Your task to perform on an android device: open chrome privacy settings Image 0: 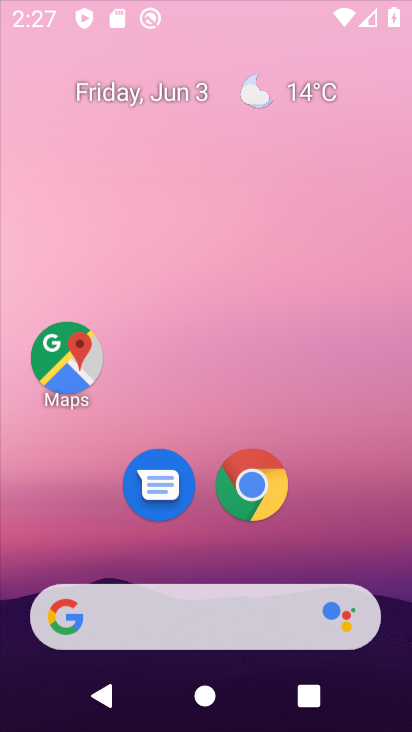
Step 0: press back button
Your task to perform on an android device: open chrome privacy settings Image 1: 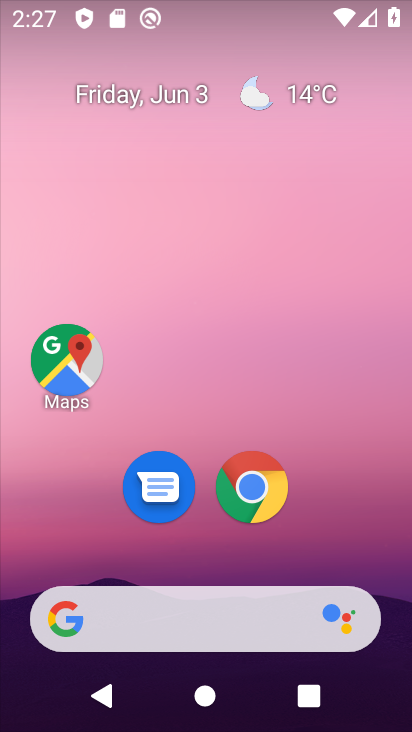
Step 1: click (75, 364)
Your task to perform on an android device: open chrome privacy settings Image 2: 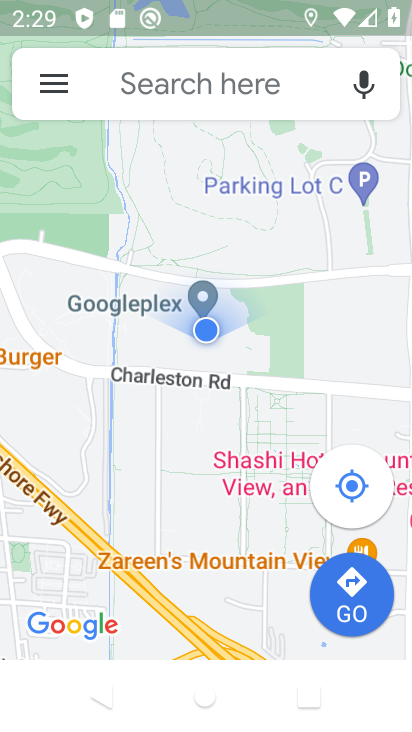
Step 2: press back button
Your task to perform on an android device: open chrome privacy settings Image 3: 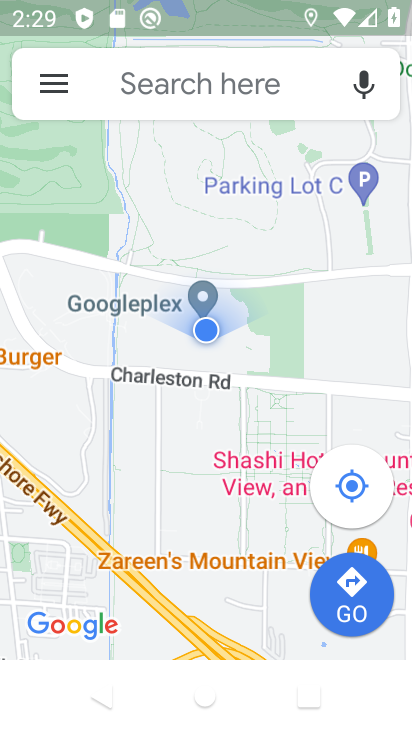
Step 3: press back button
Your task to perform on an android device: open chrome privacy settings Image 4: 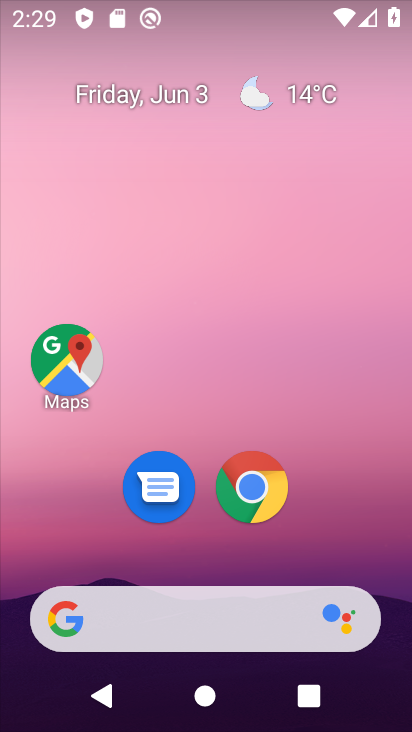
Step 4: press back button
Your task to perform on an android device: open chrome privacy settings Image 5: 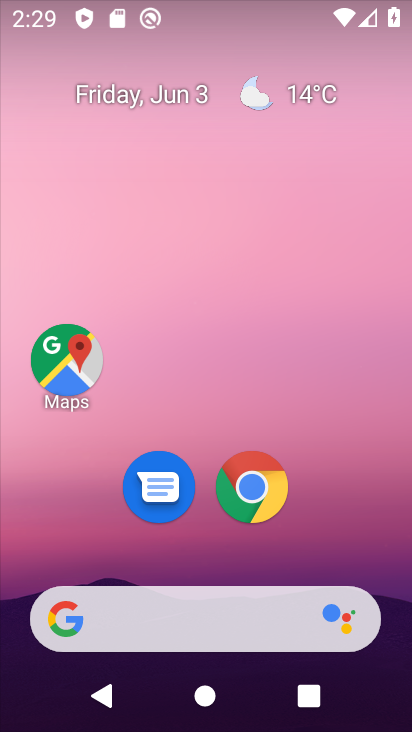
Step 5: click (275, 458)
Your task to perform on an android device: open chrome privacy settings Image 6: 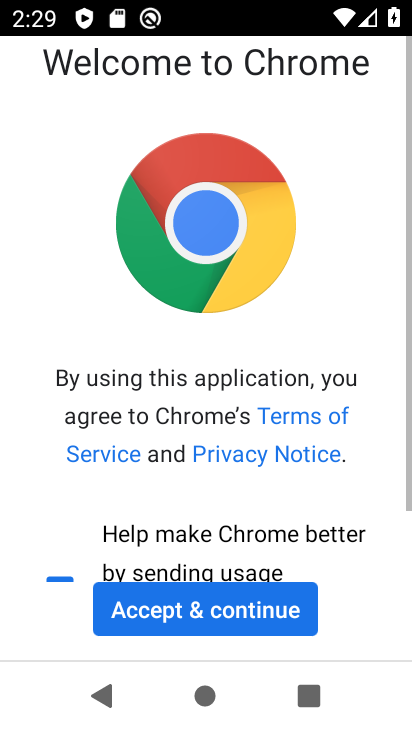
Step 6: click (163, 610)
Your task to perform on an android device: open chrome privacy settings Image 7: 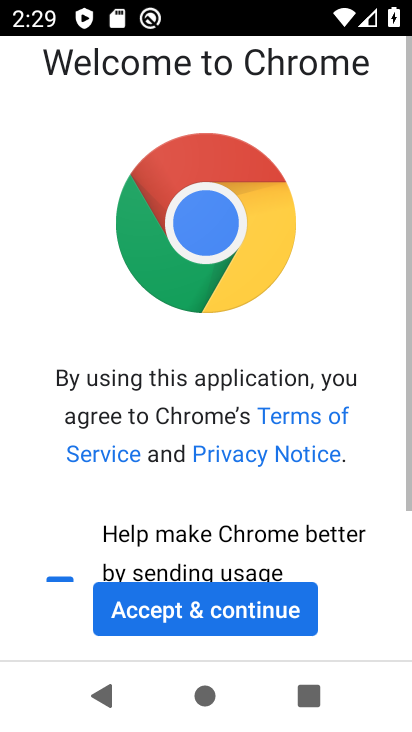
Step 7: click (163, 610)
Your task to perform on an android device: open chrome privacy settings Image 8: 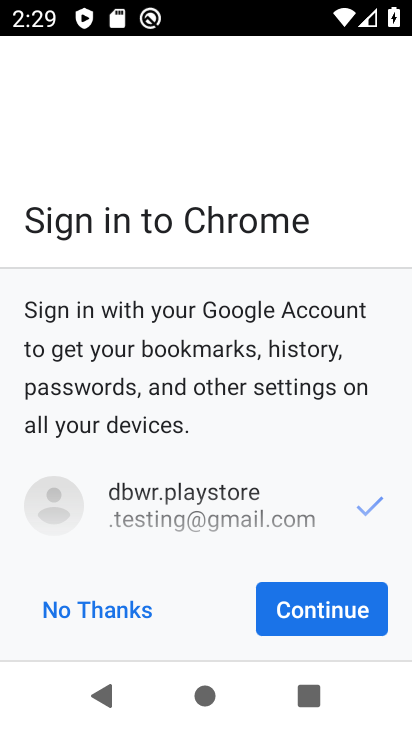
Step 8: click (279, 608)
Your task to perform on an android device: open chrome privacy settings Image 9: 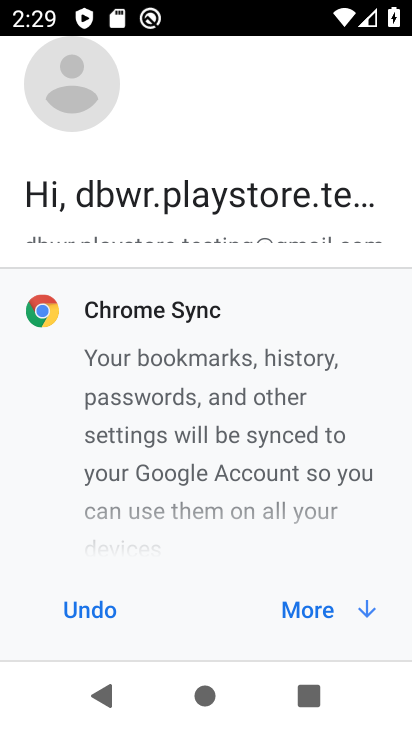
Step 9: click (291, 610)
Your task to perform on an android device: open chrome privacy settings Image 10: 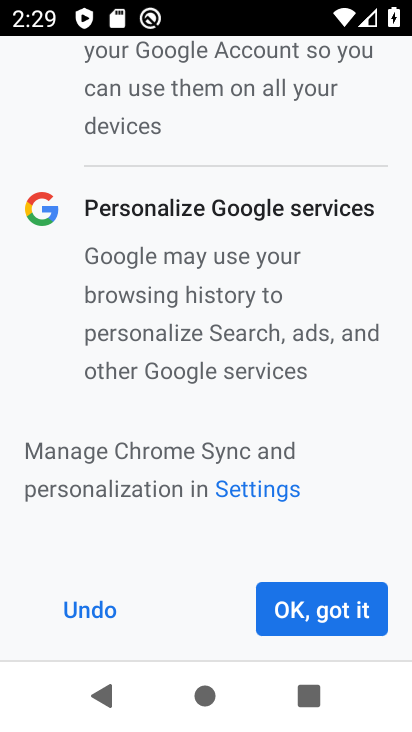
Step 10: click (308, 621)
Your task to perform on an android device: open chrome privacy settings Image 11: 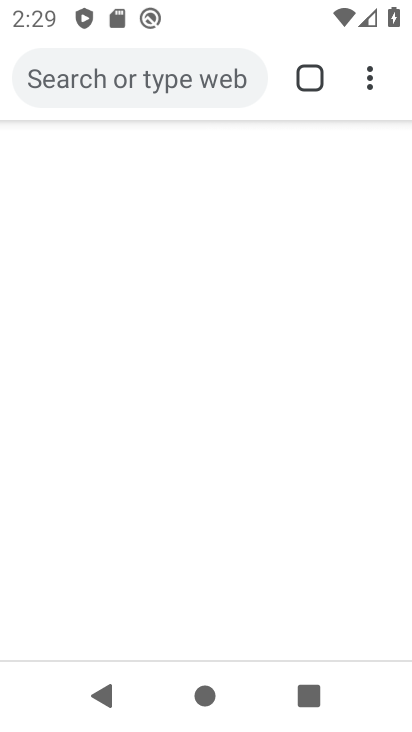
Step 11: drag from (370, 68) to (237, 397)
Your task to perform on an android device: open chrome privacy settings Image 12: 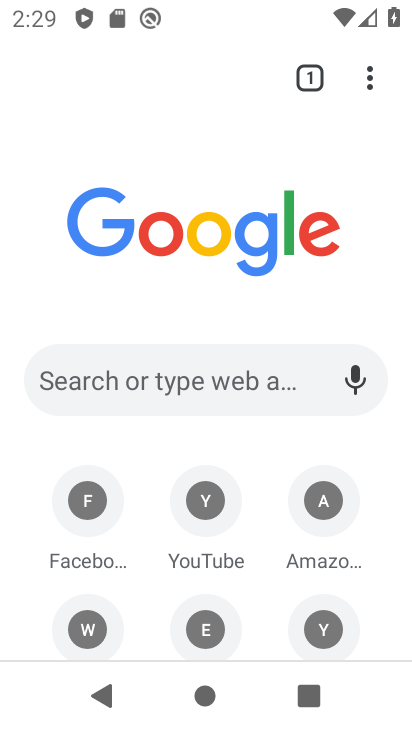
Step 12: drag from (364, 83) to (106, 535)
Your task to perform on an android device: open chrome privacy settings Image 13: 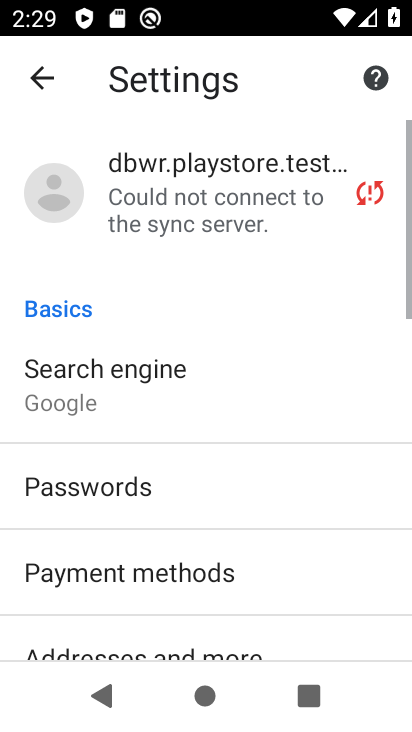
Step 13: drag from (137, 575) to (276, 23)
Your task to perform on an android device: open chrome privacy settings Image 14: 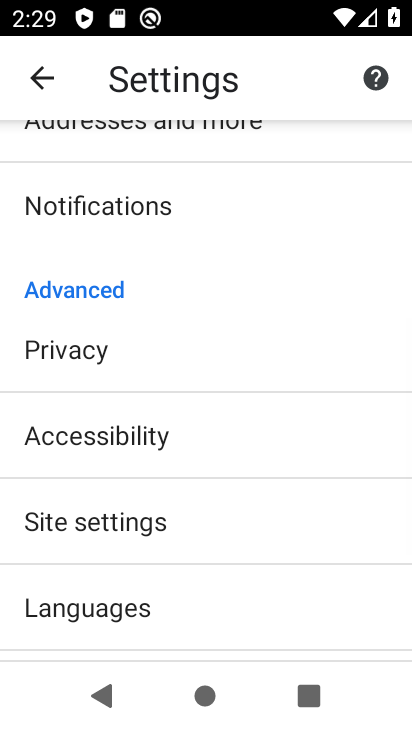
Step 14: click (112, 354)
Your task to perform on an android device: open chrome privacy settings Image 15: 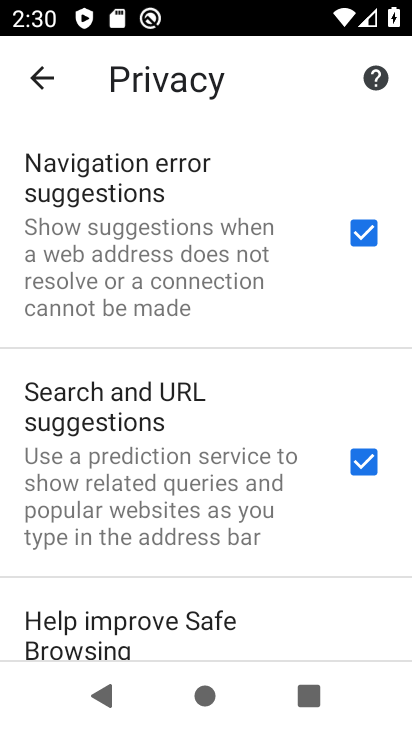
Step 15: task complete